Your task to perform on an android device: What's the weather? Image 0: 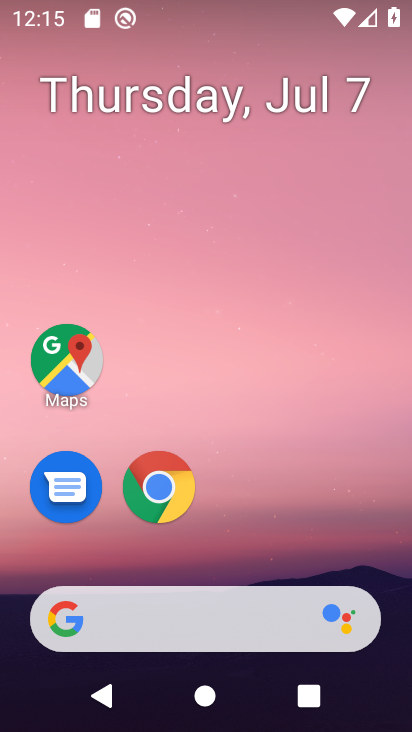
Step 0: click (272, 612)
Your task to perform on an android device: What's the weather? Image 1: 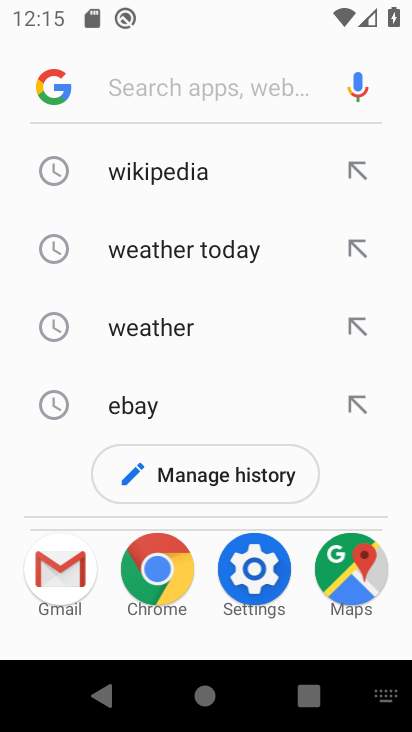
Step 1: click (181, 331)
Your task to perform on an android device: What's the weather? Image 2: 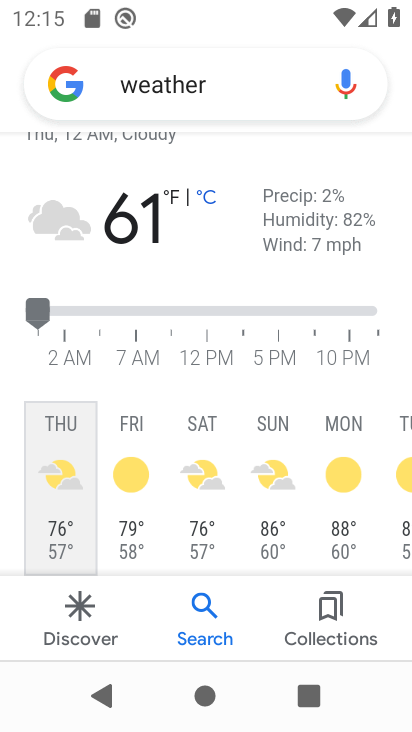
Step 2: task complete